Your task to perform on an android device: toggle airplane mode Image 0: 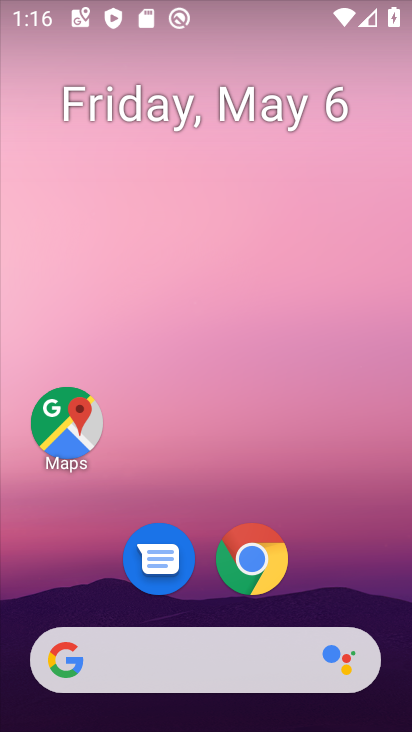
Step 0: drag from (209, 536) to (300, 92)
Your task to perform on an android device: toggle airplane mode Image 1: 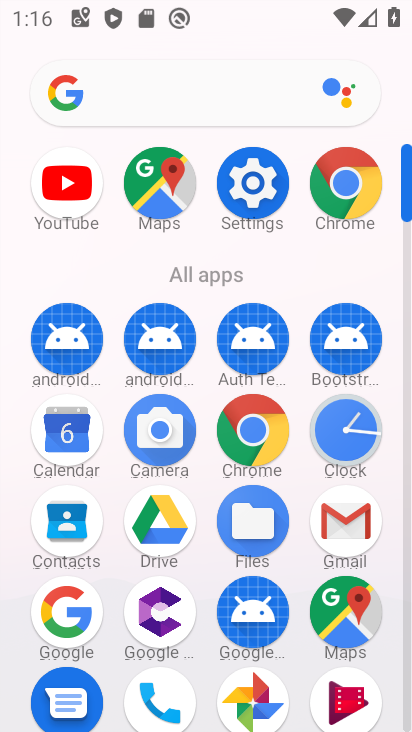
Step 1: click (240, 195)
Your task to perform on an android device: toggle airplane mode Image 2: 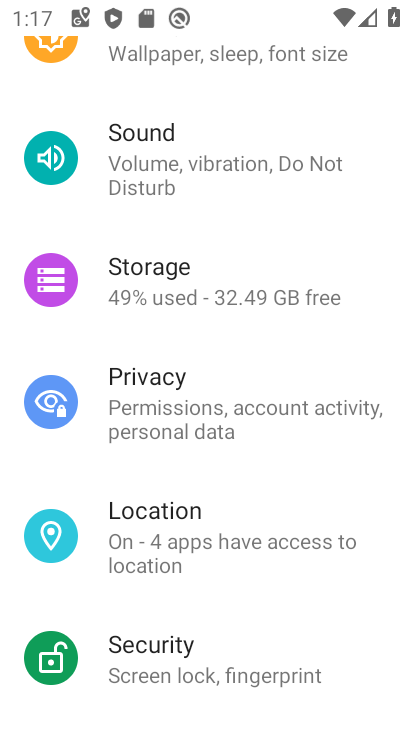
Step 2: drag from (240, 108) to (170, 587)
Your task to perform on an android device: toggle airplane mode Image 3: 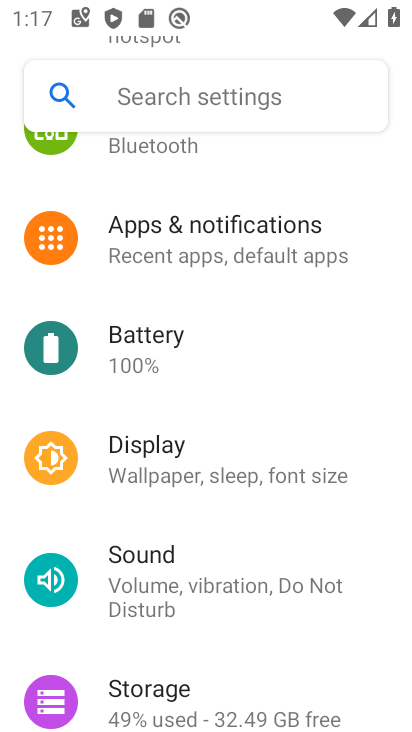
Step 3: drag from (236, 169) to (160, 722)
Your task to perform on an android device: toggle airplane mode Image 4: 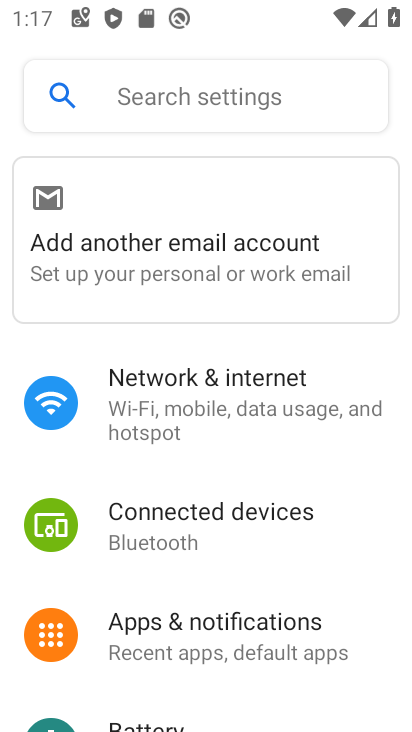
Step 4: click (204, 407)
Your task to perform on an android device: toggle airplane mode Image 5: 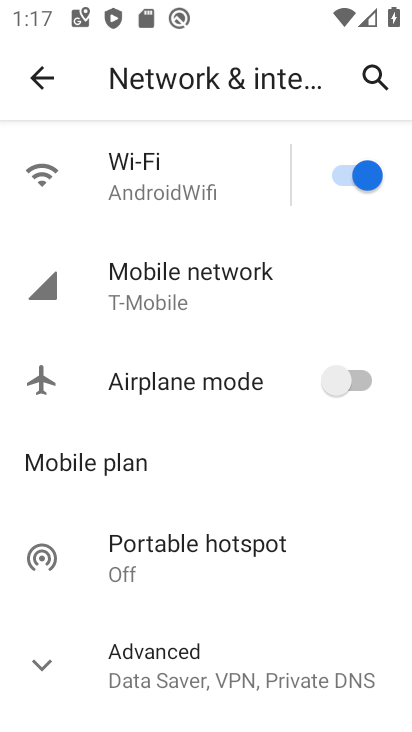
Step 5: click (358, 369)
Your task to perform on an android device: toggle airplane mode Image 6: 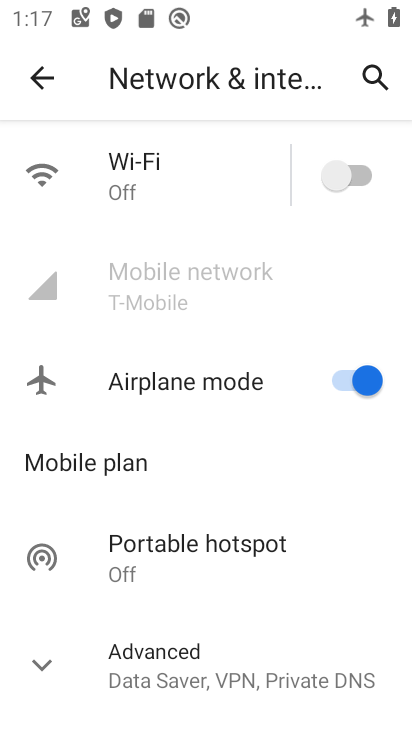
Step 6: task complete